Your task to perform on an android device: Go to notification settings Image 0: 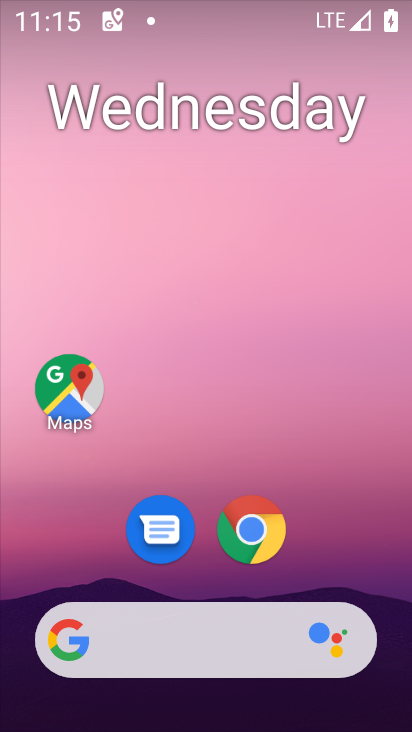
Step 0: drag from (383, 626) to (365, 65)
Your task to perform on an android device: Go to notification settings Image 1: 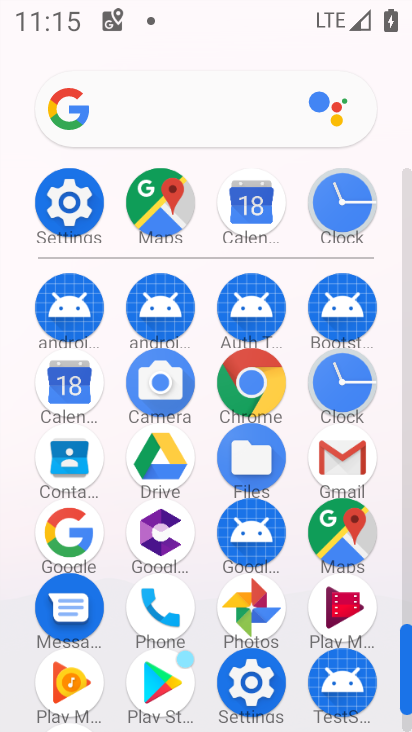
Step 1: click (405, 603)
Your task to perform on an android device: Go to notification settings Image 2: 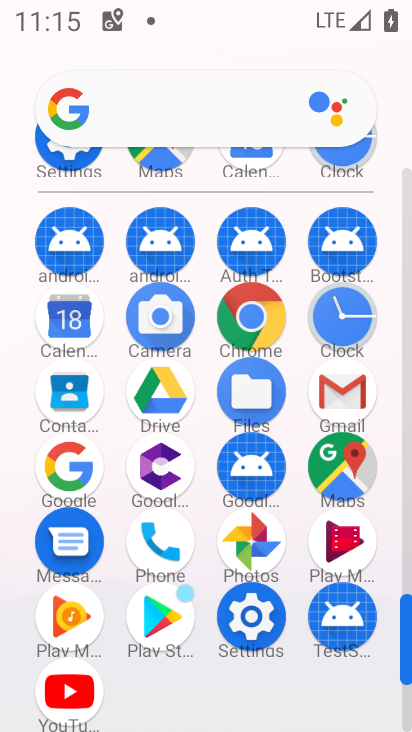
Step 2: click (249, 615)
Your task to perform on an android device: Go to notification settings Image 3: 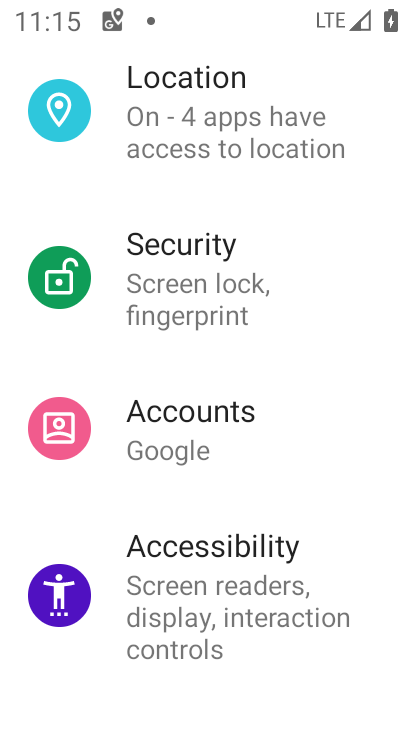
Step 3: drag from (369, 142) to (344, 500)
Your task to perform on an android device: Go to notification settings Image 4: 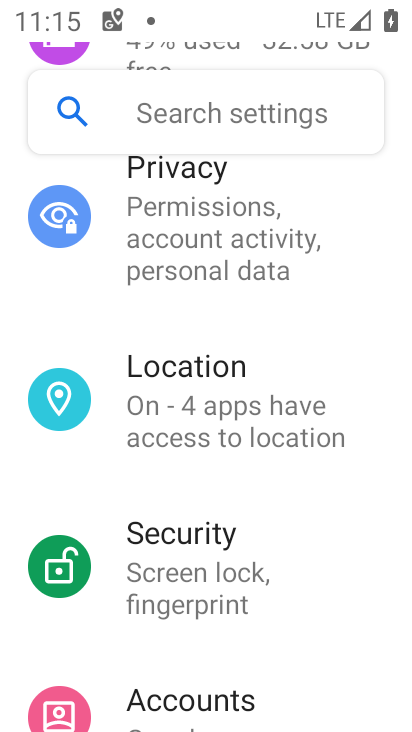
Step 4: drag from (344, 187) to (344, 528)
Your task to perform on an android device: Go to notification settings Image 5: 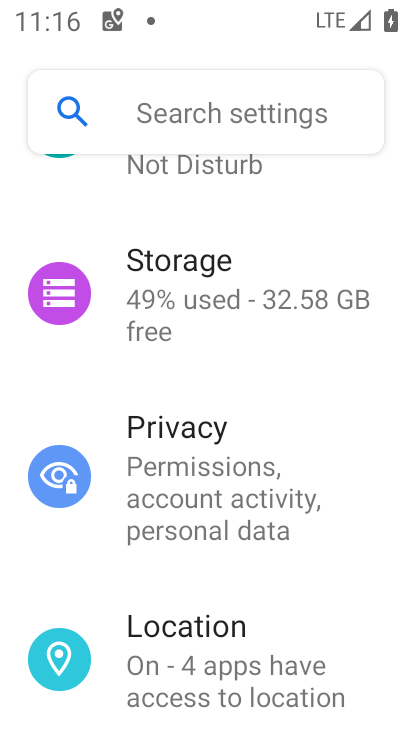
Step 5: drag from (373, 195) to (342, 525)
Your task to perform on an android device: Go to notification settings Image 6: 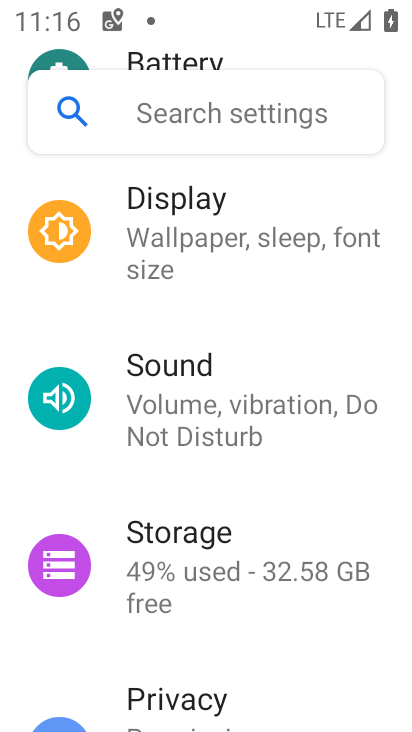
Step 6: drag from (375, 198) to (361, 516)
Your task to perform on an android device: Go to notification settings Image 7: 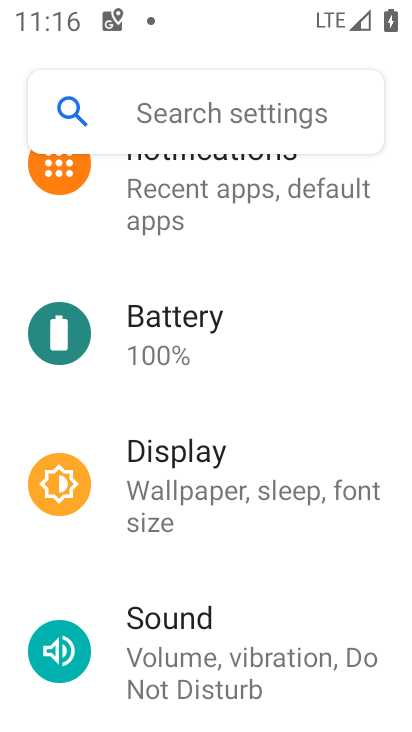
Step 7: drag from (362, 208) to (356, 485)
Your task to perform on an android device: Go to notification settings Image 8: 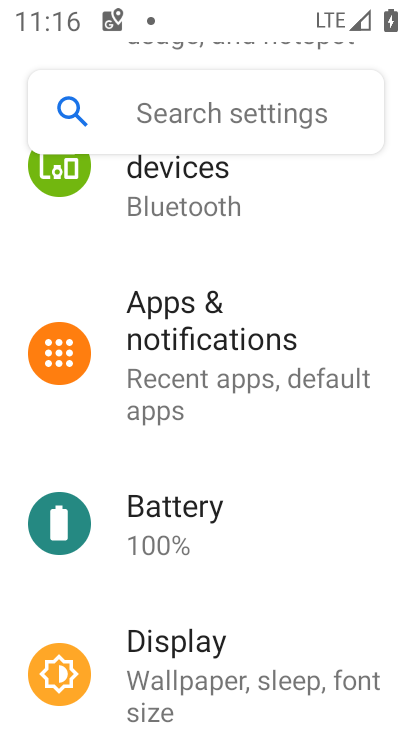
Step 8: click (162, 336)
Your task to perform on an android device: Go to notification settings Image 9: 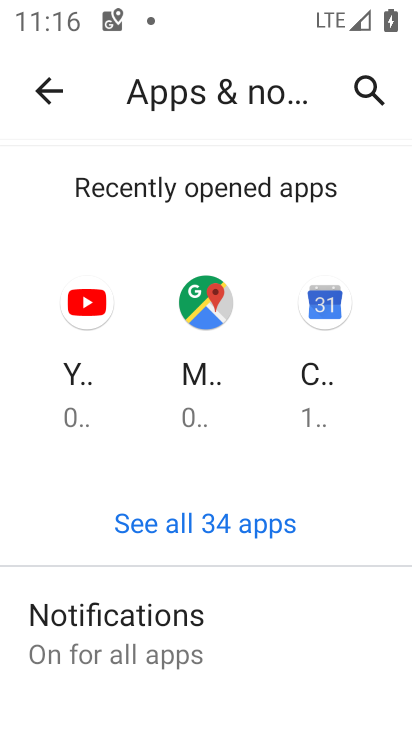
Step 9: drag from (306, 661) to (347, 259)
Your task to perform on an android device: Go to notification settings Image 10: 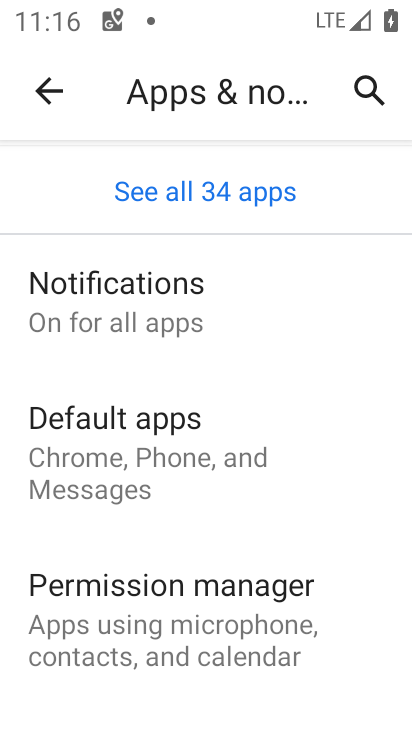
Step 10: click (61, 314)
Your task to perform on an android device: Go to notification settings Image 11: 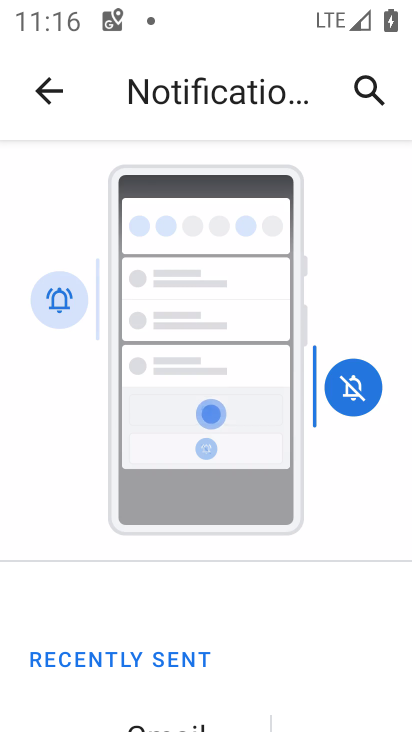
Step 11: drag from (314, 686) to (269, 102)
Your task to perform on an android device: Go to notification settings Image 12: 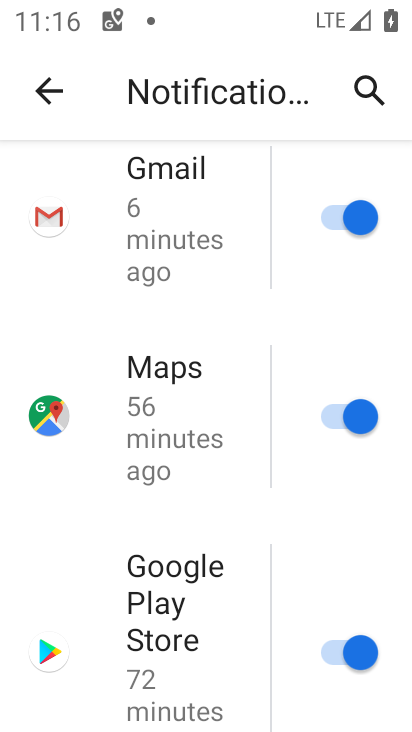
Step 12: drag from (272, 705) to (255, 129)
Your task to perform on an android device: Go to notification settings Image 13: 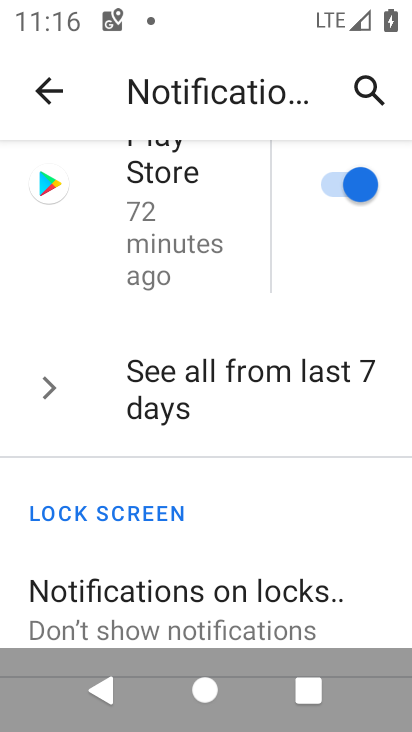
Step 13: drag from (274, 610) to (266, 208)
Your task to perform on an android device: Go to notification settings Image 14: 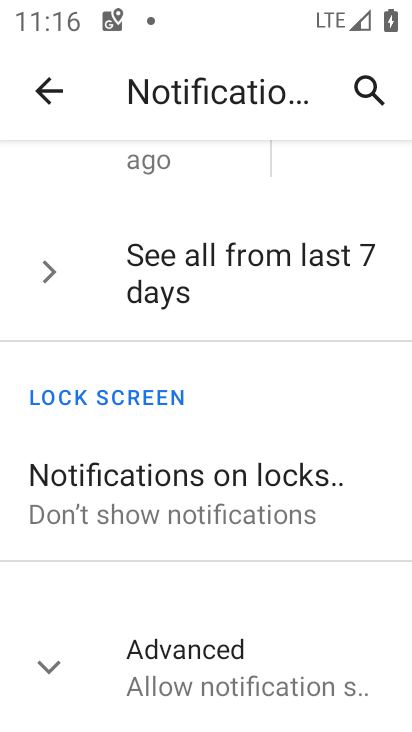
Step 14: click (50, 673)
Your task to perform on an android device: Go to notification settings Image 15: 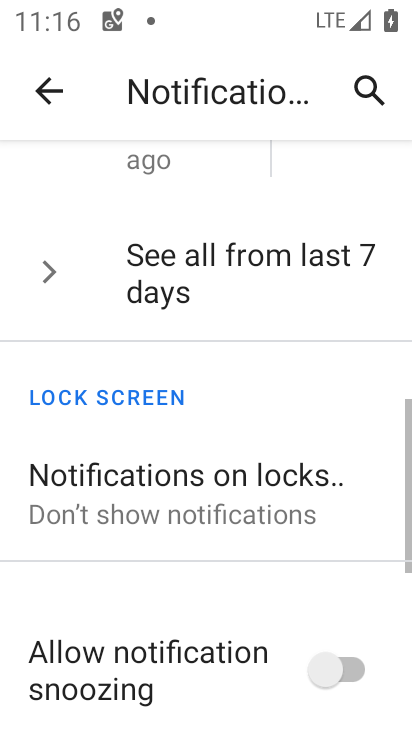
Step 15: task complete